Your task to perform on an android device: Open calendar and show me the fourth week of next month Image 0: 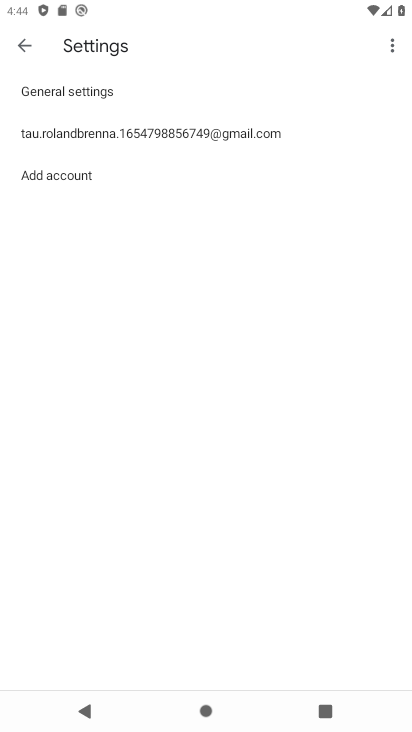
Step 0: press home button
Your task to perform on an android device: Open calendar and show me the fourth week of next month Image 1: 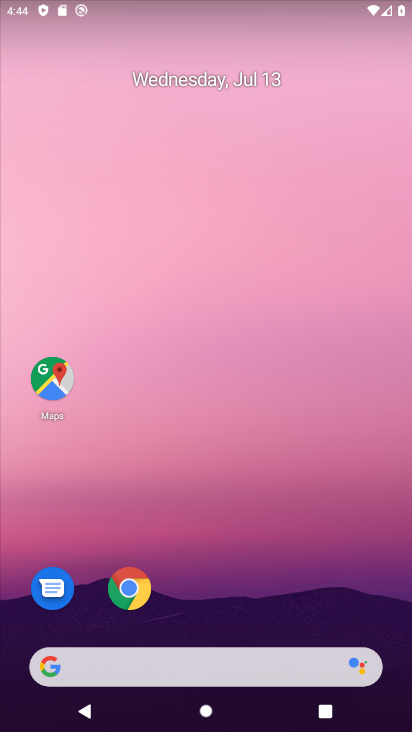
Step 1: click (232, 88)
Your task to perform on an android device: Open calendar and show me the fourth week of next month Image 2: 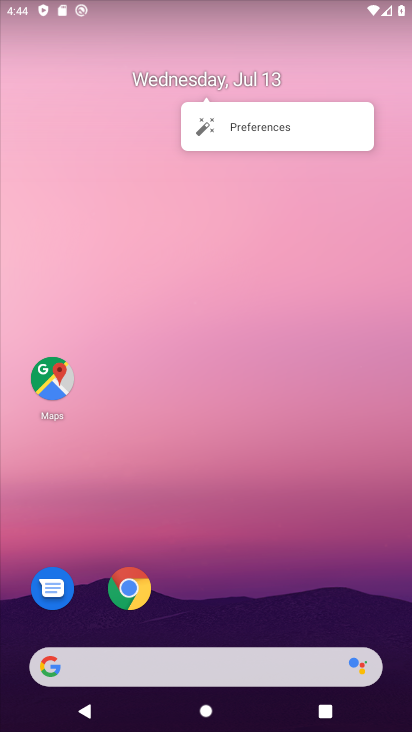
Step 2: click (181, 82)
Your task to perform on an android device: Open calendar and show me the fourth week of next month Image 3: 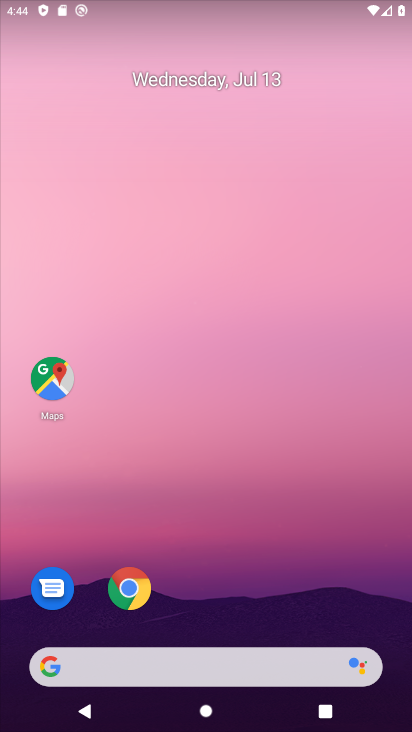
Step 3: click (181, 82)
Your task to perform on an android device: Open calendar and show me the fourth week of next month Image 4: 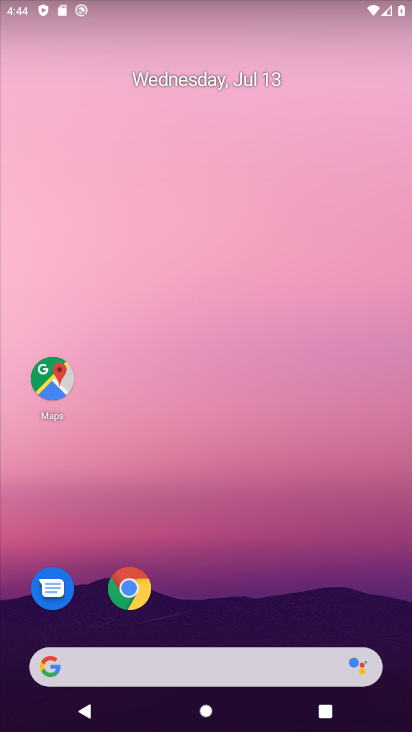
Step 4: click (181, 82)
Your task to perform on an android device: Open calendar and show me the fourth week of next month Image 5: 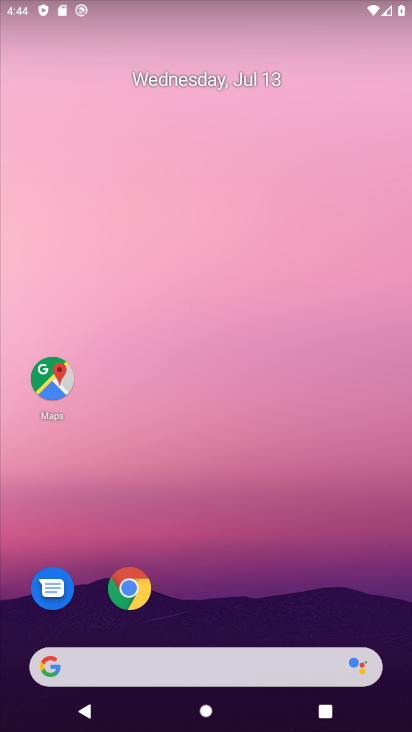
Step 5: click (181, 82)
Your task to perform on an android device: Open calendar and show me the fourth week of next month Image 6: 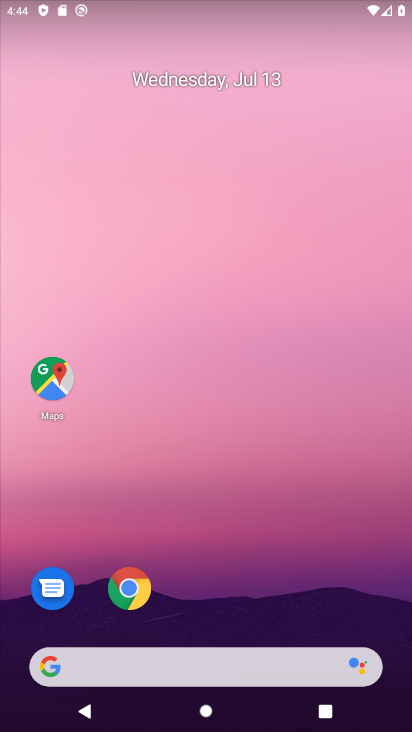
Step 6: click (181, 82)
Your task to perform on an android device: Open calendar and show me the fourth week of next month Image 7: 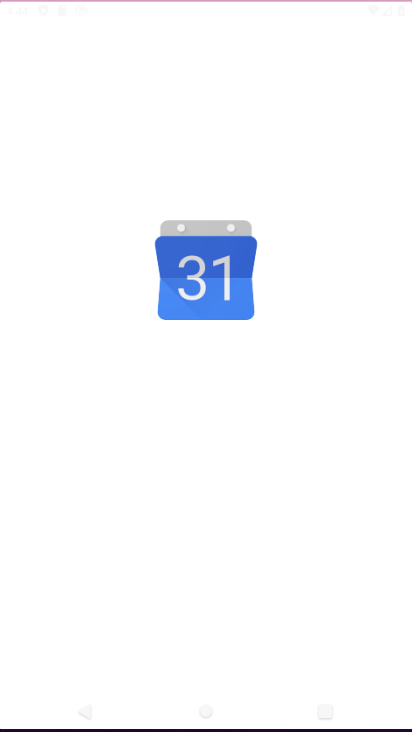
Step 7: click (181, 82)
Your task to perform on an android device: Open calendar and show me the fourth week of next month Image 8: 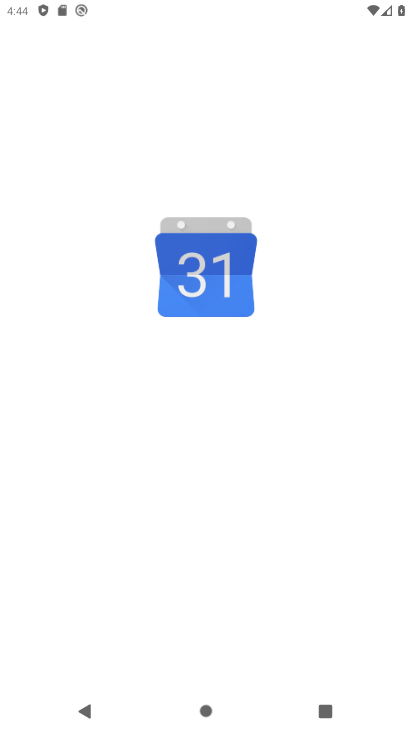
Step 8: click (181, 82)
Your task to perform on an android device: Open calendar and show me the fourth week of next month Image 9: 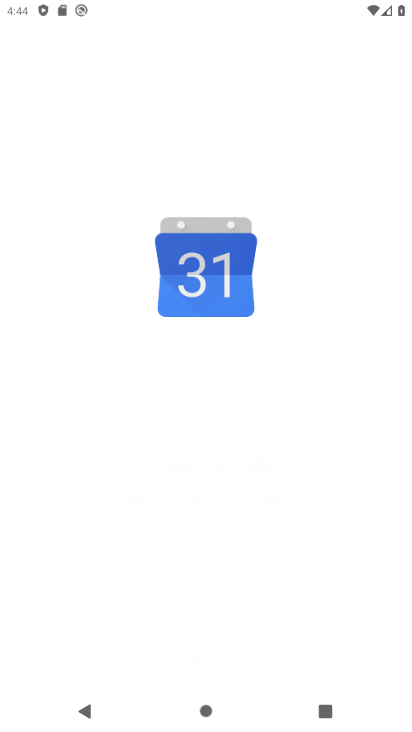
Step 9: click (181, 82)
Your task to perform on an android device: Open calendar and show me the fourth week of next month Image 10: 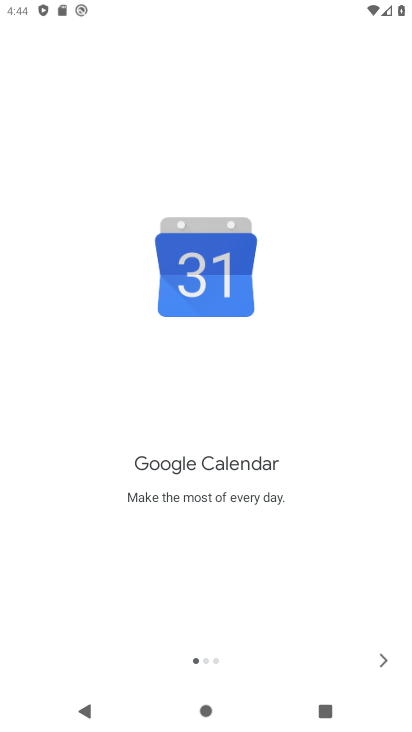
Step 10: click (181, 82)
Your task to perform on an android device: Open calendar and show me the fourth week of next month Image 11: 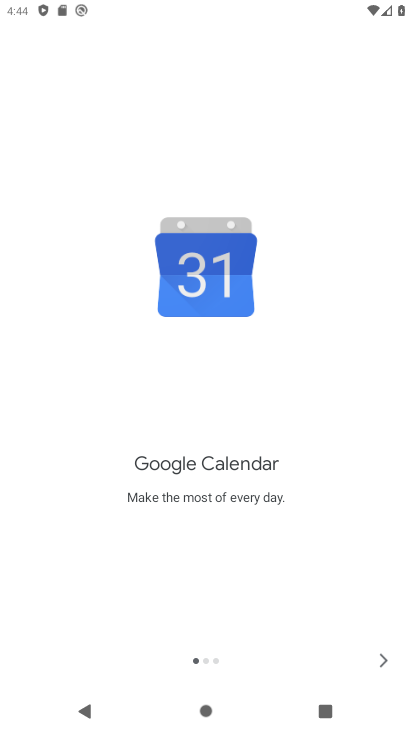
Step 11: click (181, 82)
Your task to perform on an android device: Open calendar and show me the fourth week of next month Image 12: 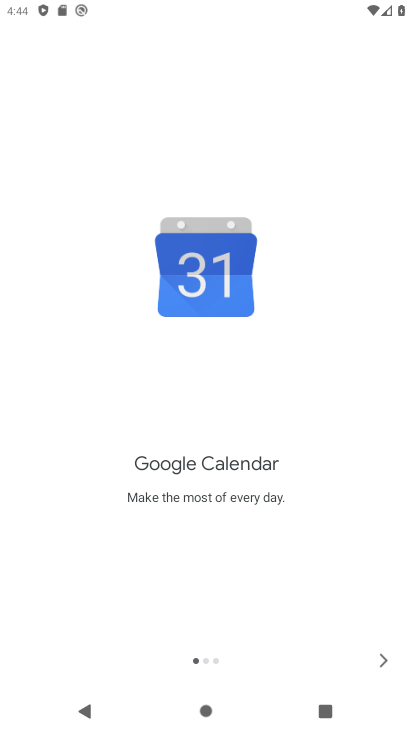
Step 12: click (181, 82)
Your task to perform on an android device: Open calendar and show me the fourth week of next month Image 13: 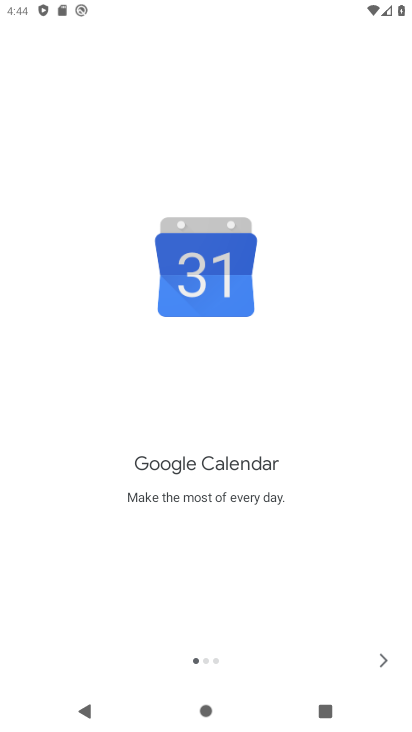
Step 13: click (181, 82)
Your task to perform on an android device: Open calendar and show me the fourth week of next month Image 14: 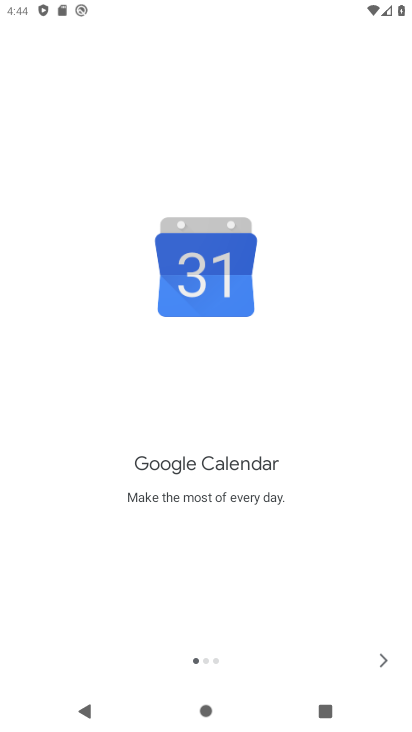
Step 14: click (181, 82)
Your task to perform on an android device: Open calendar and show me the fourth week of next month Image 15: 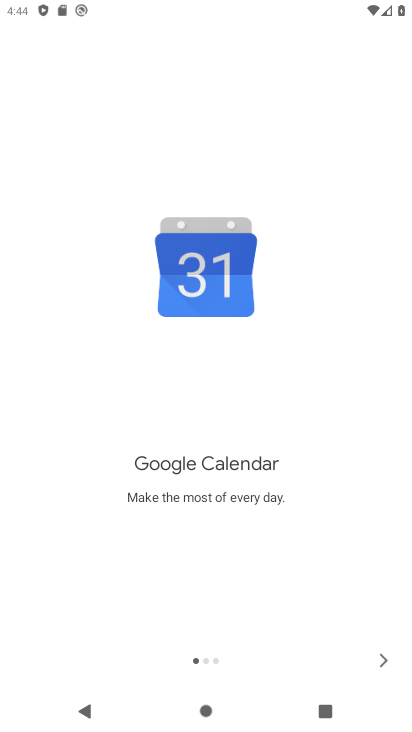
Step 15: click (181, 82)
Your task to perform on an android device: Open calendar and show me the fourth week of next month Image 16: 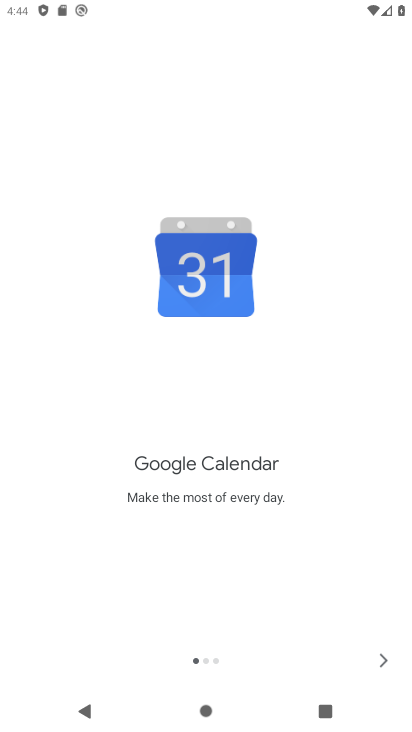
Step 16: click (387, 651)
Your task to perform on an android device: Open calendar and show me the fourth week of next month Image 17: 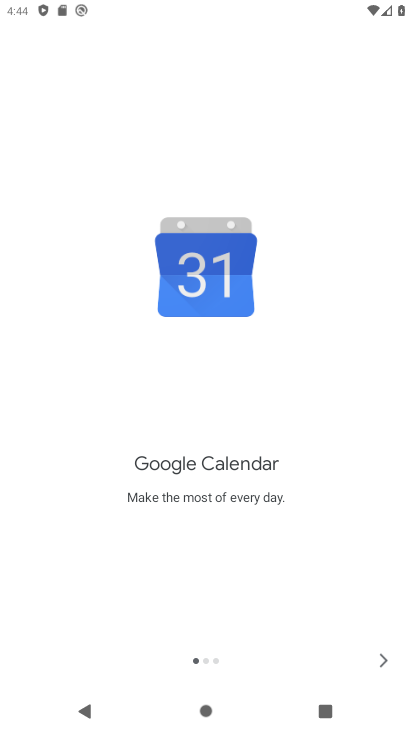
Step 17: click (387, 651)
Your task to perform on an android device: Open calendar and show me the fourth week of next month Image 18: 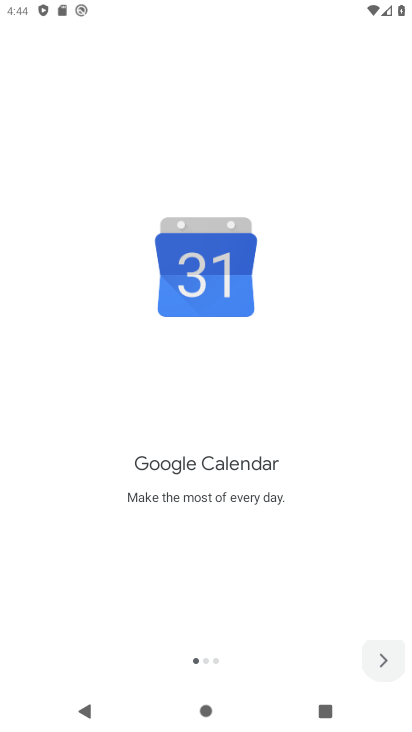
Step 18: click (387, 651)
Your task to perform on an android device: Open calendar and show me the fourth week of next month Image 19: 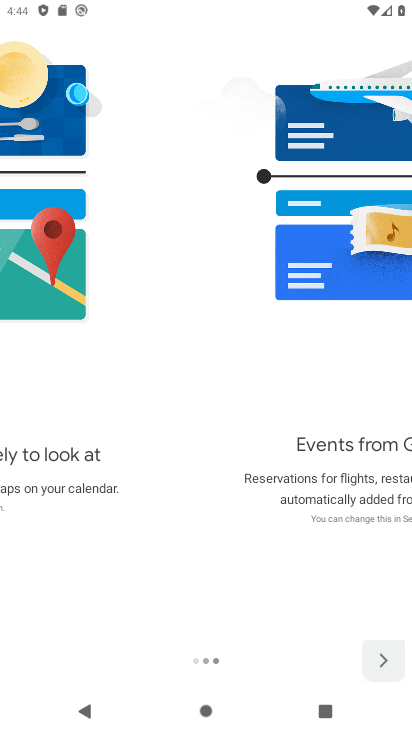
Step 19: click (387, 651)
Your task to perform on an android device: Open calendar and show me the fourth week of next month Image 20: 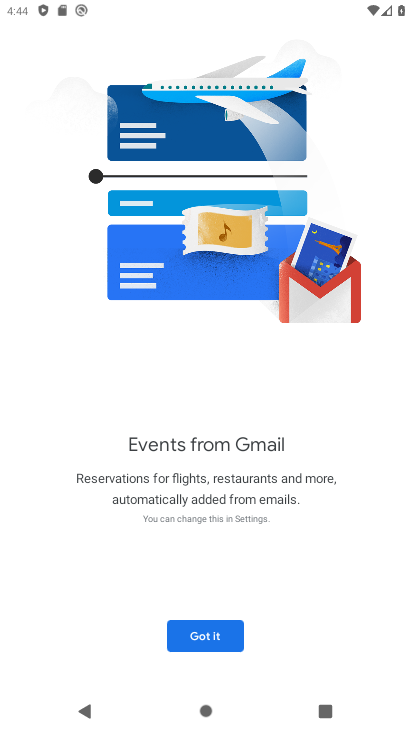
Step 20: click (387, 651)
Your task to perform on an android device: Open calendar and show me the fourth week of next month Image 21: 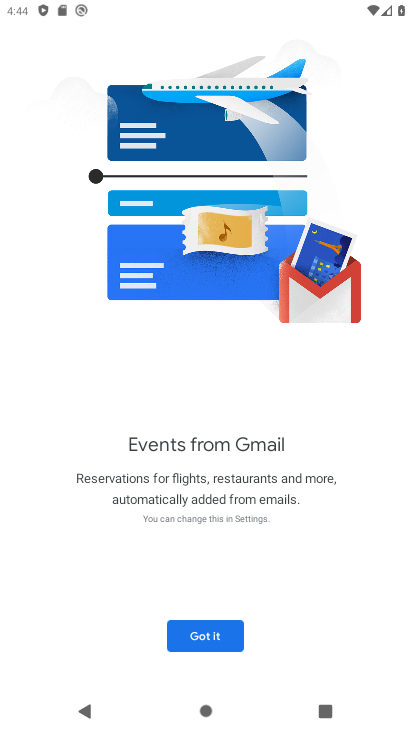
Step 21: click (387, 651)
Your task to perform on an android device: Open calendar and show me the fourth week of next month Image 22: 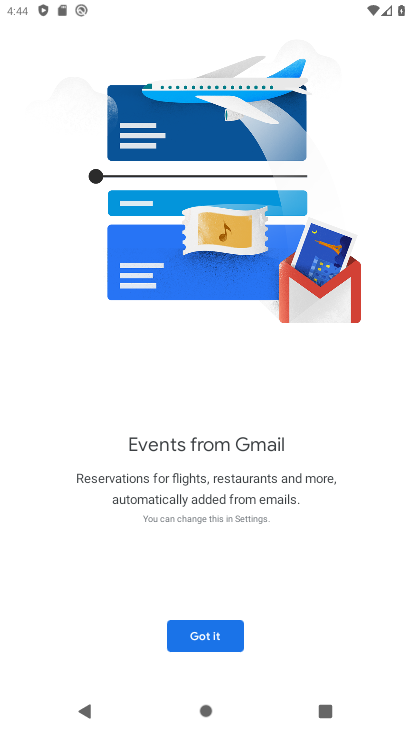
Step 22: click (387, 651)
Your task to perform on an android device: Open calendar and show me the fourth week of next month Image 23: 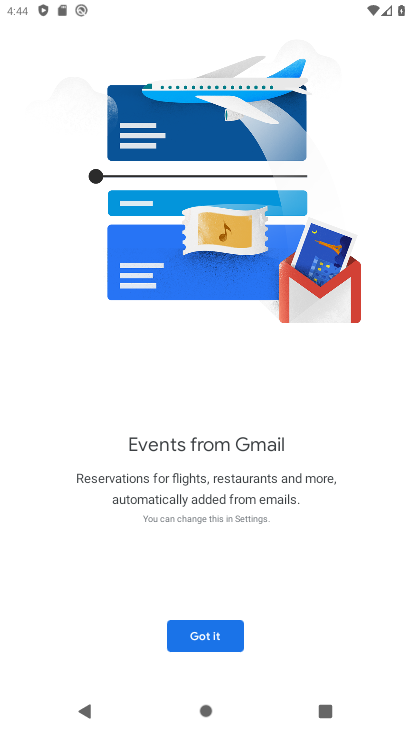
Step 23: click (379, 660)
Your task to perform on an android device: Open calendar and show me the fourth week of next month Image 24: 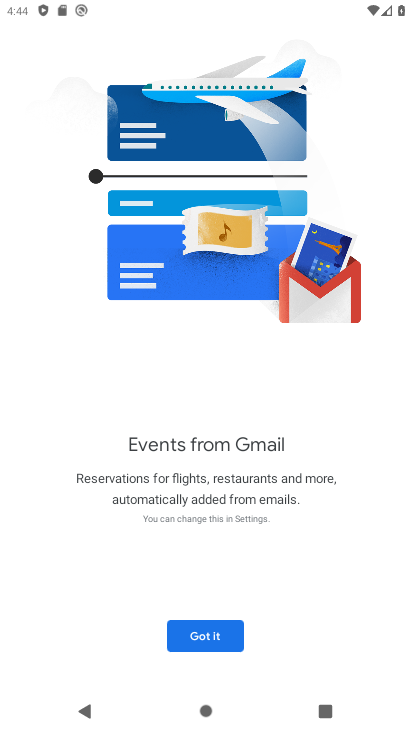
Step 24: click (379, 660)
Your task to perform on an android device: Open calendar and show me the fourth week of next month Image 25: 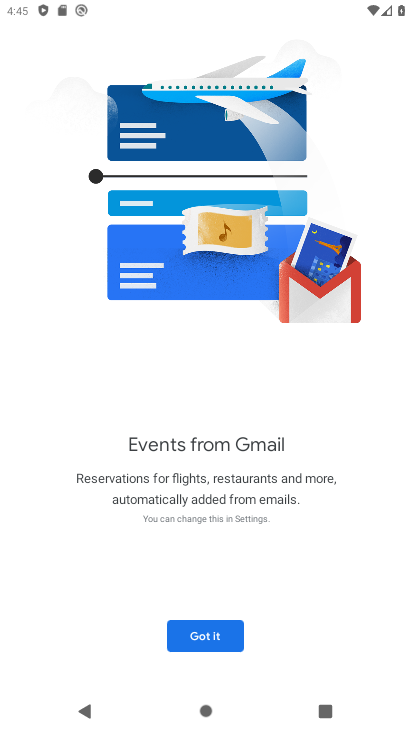
Step 25: click (209, 636)
Your task to perform on an android device: Open calendar and show me the fourth week of next month Image 26: 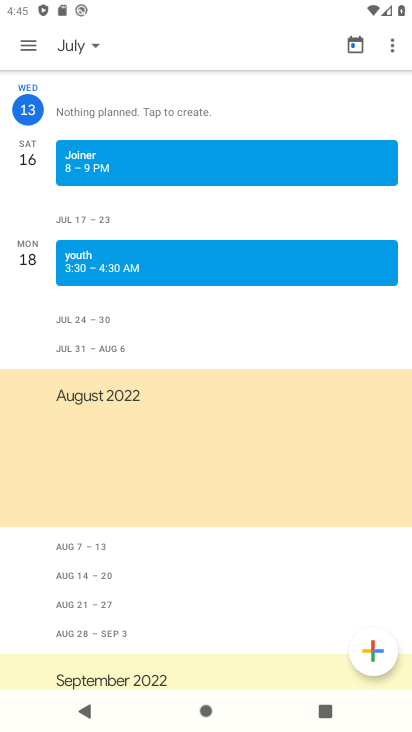
Step 26: click (92, 48)
Your task to perform on an android device: Open calendar and show me the fourth week of next month Image 27: 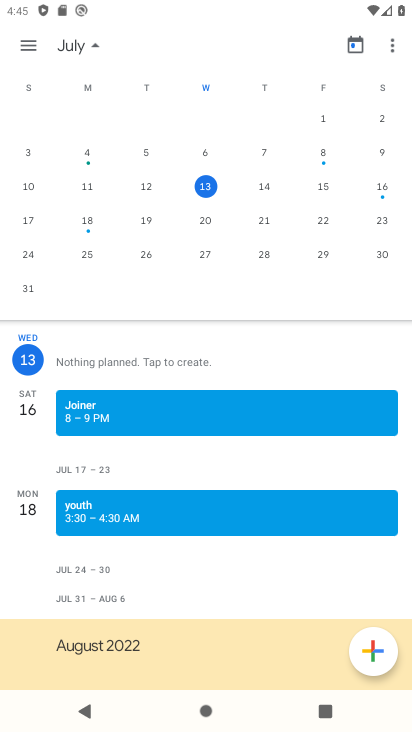
Step 27: drag from (373, 285) to (38, 292)
Your task to perform on an android device: Open calendar and show me the fourth week of next month Image 28: 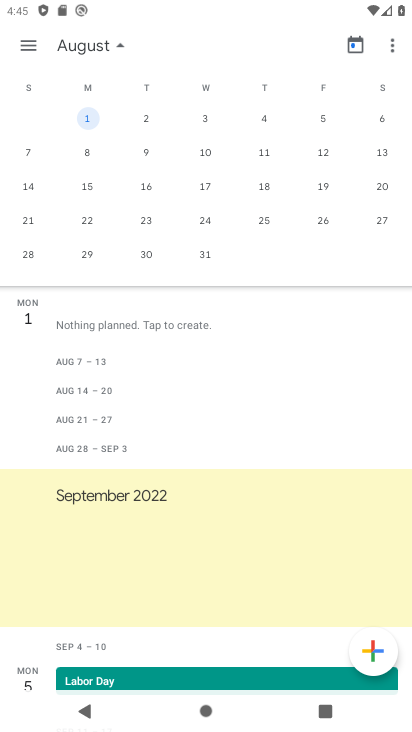
Step 28: click (211, 214)
Your task to perform on an android device: Open calendar and show me the fourth week of next month Image 29: 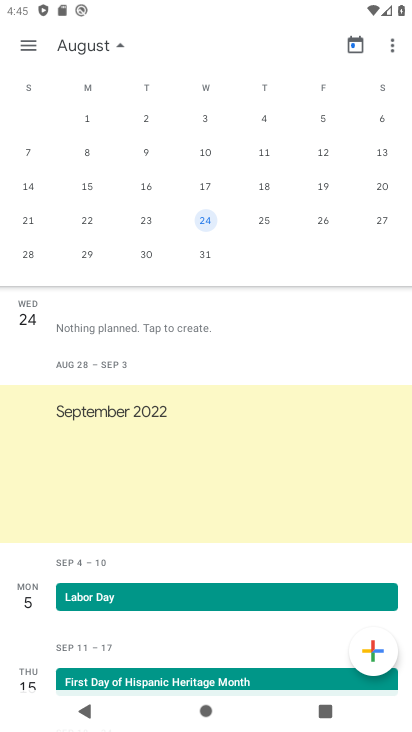
Step 29: task complete